Your task to perform on an android device: Open the calendar and show me this week's events? Image 0: 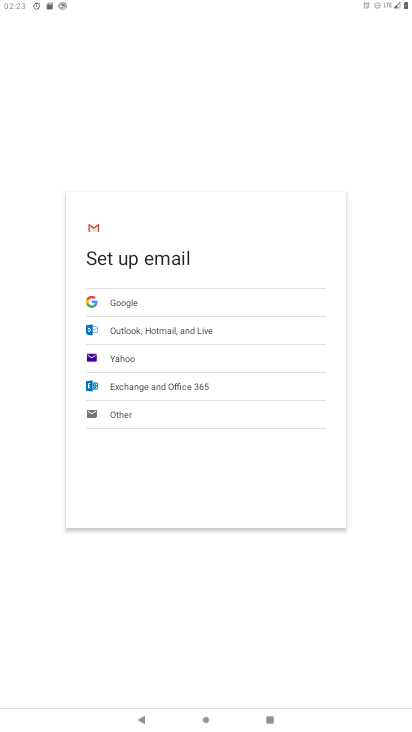
Step 0: press home button
Your task to perform on an android device: Open the calendar and show me this week's events? Image 1: 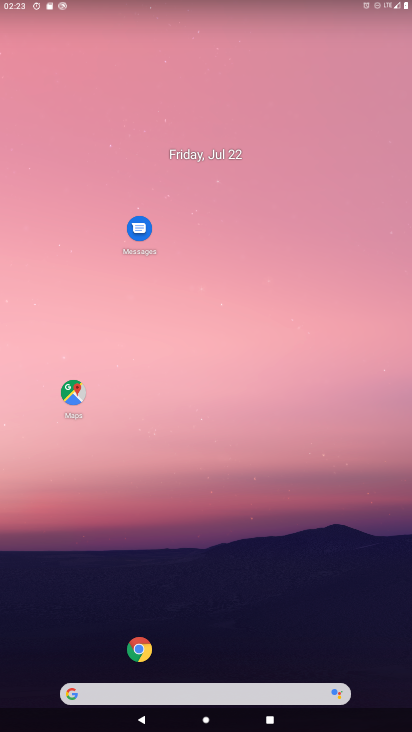
Step 1: drag from (231, 267) to (283, 22)
Your task to perform on an android device: Open the calendar and show me this week's events? Image 2: 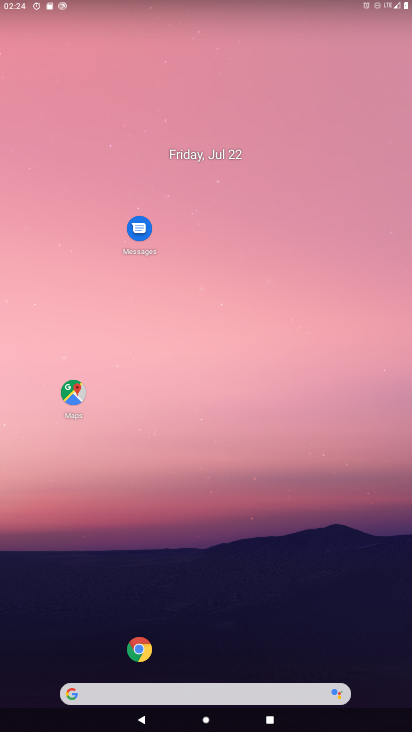
Step 2: drag from (42, 693) to (182, 143)
Your task to perform on an android device: Open the calendar and show me this week's events? Image 3: 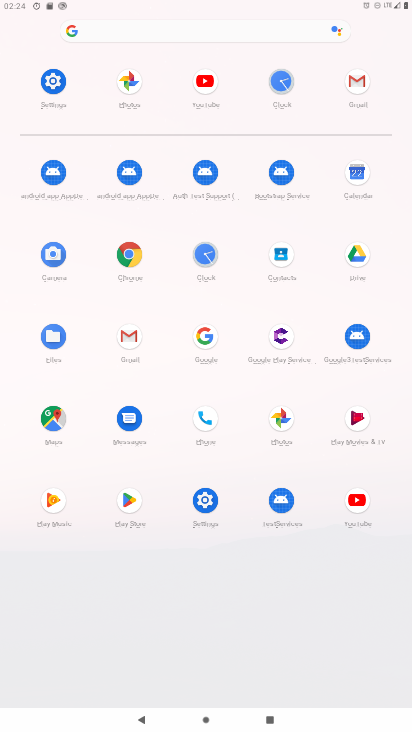
Step 3: click (355, 175)
Your task to perform on an android device: Open the calendar and show me this week's events? Image 4: 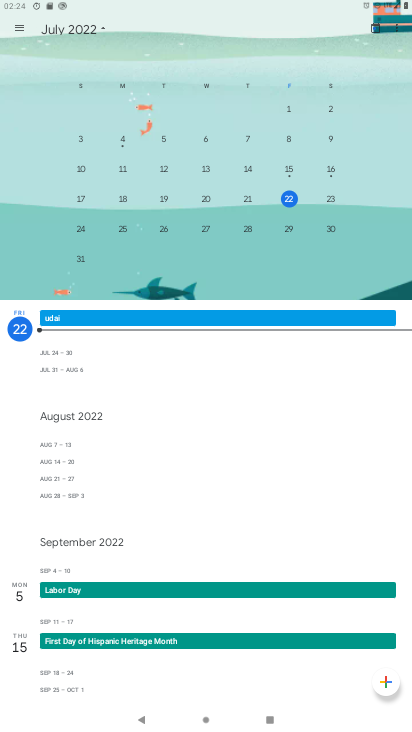
Step 4: task complete